Your task to perform on an android device: Is it going to rain tomorrow? Image 0: 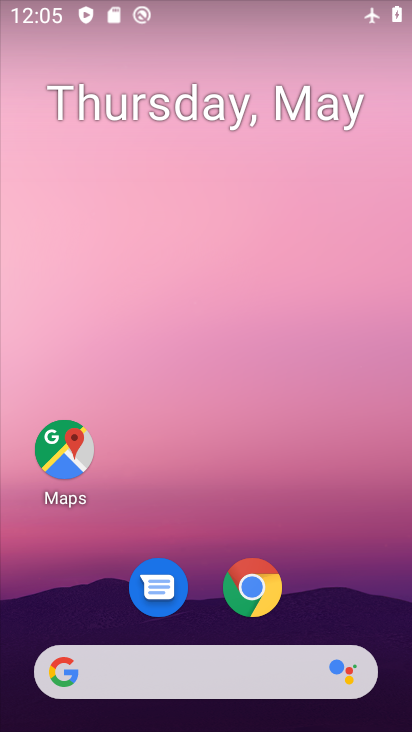
Step 0: click (347, 37)
Your task to perform on an android device: Is it going to rain tomorrow? Image 1: 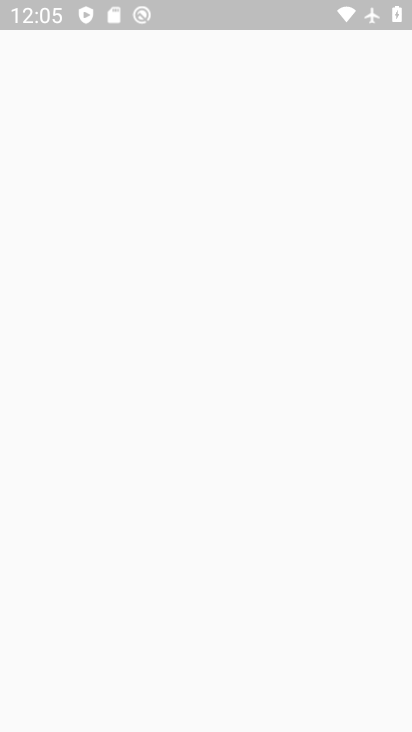
Step 1: drag from (320, 603) to (329, 181)
Your task to perform on an android device: Is it going to rain tomorrow? Image 2: 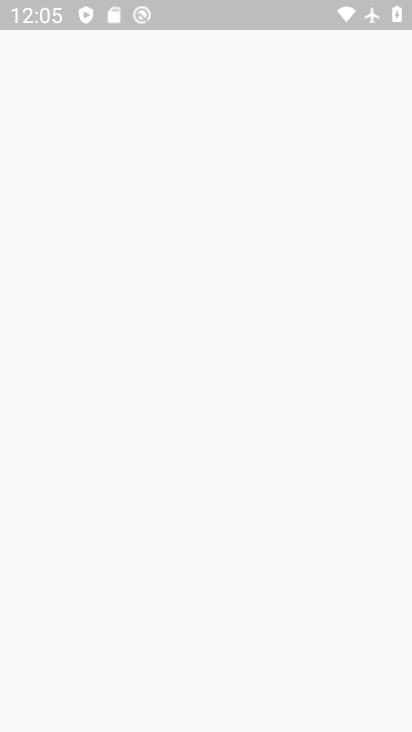
Step 2: press home button
Your task to perform on an android device: Is it going to rain tomorrow? Image 3: 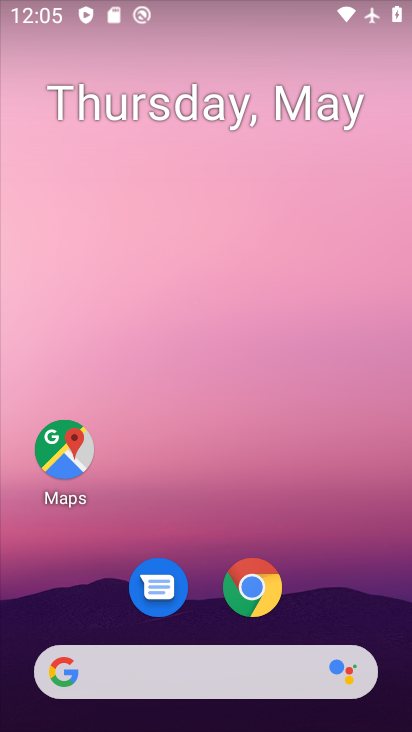
Step 3: drag from (98, 270) to (409, 242)
Your task to perform on an android device: Is it going to rain tomorrow? Image 4: 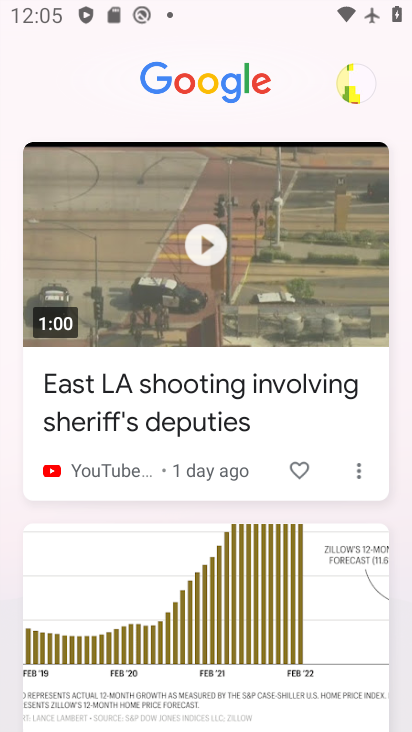
Step 4: drag from (282, 119) to (308, 519)
Your task to perform on an android device: Is it going to rain tomorrow? Image 5: 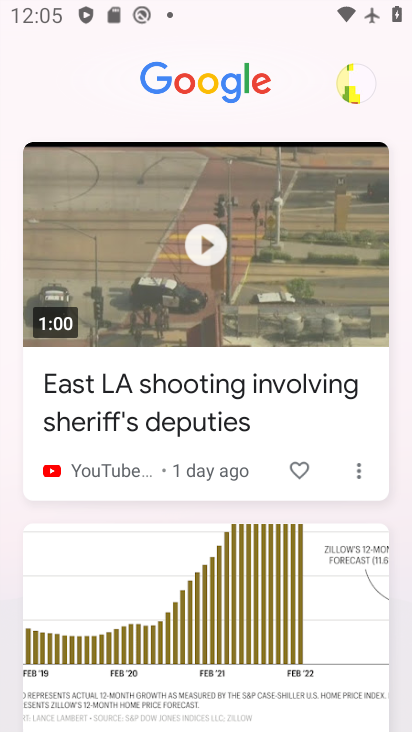
Step 5: press home button
Your task to perform on an android device: Is it going to rain tomorrow? Image 6: 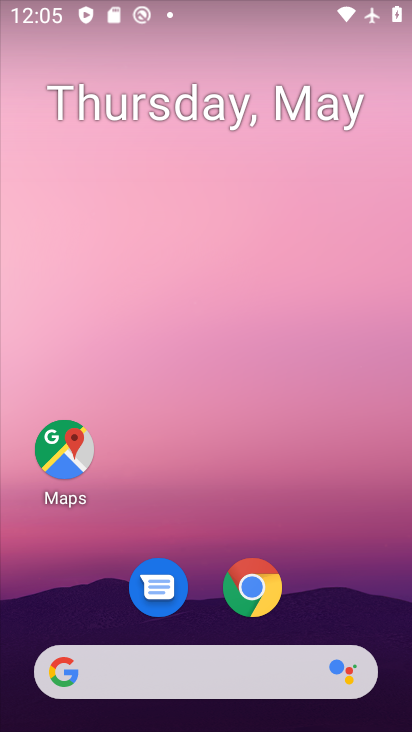
Step 6: drag from (137, 569) to (252, 60)
Your task to perform on an android device: Is it going to rain tomorrow? Image 7: 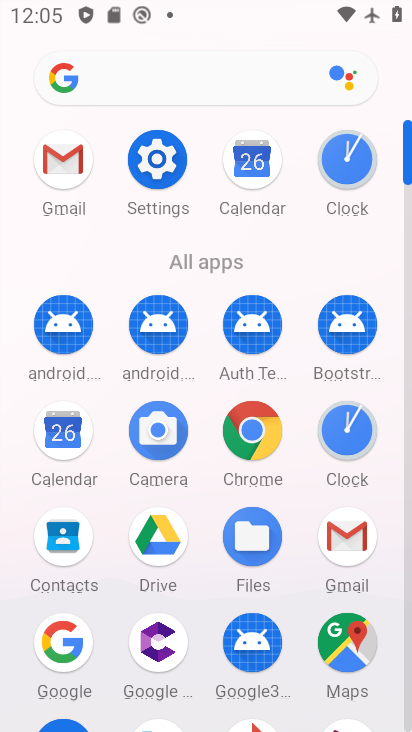
Step 7: click (70, 635)
Your task to perform on an android device: Is it going to rain tomorrow? Image 8: 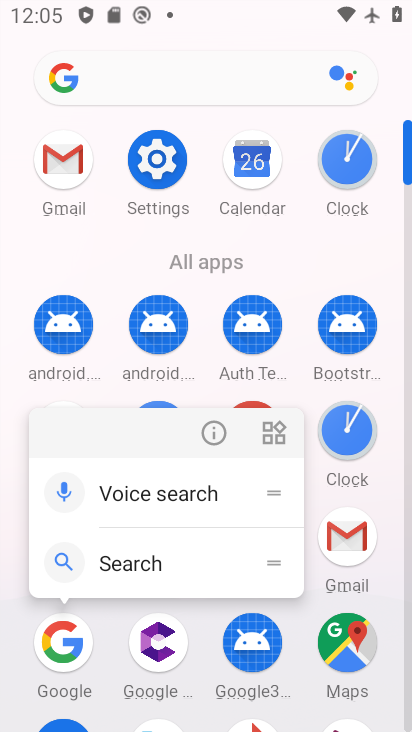
Step 8: click (61, 646)
Your task to perform on an android device: Is it going to rain tomorrow? Image 9: 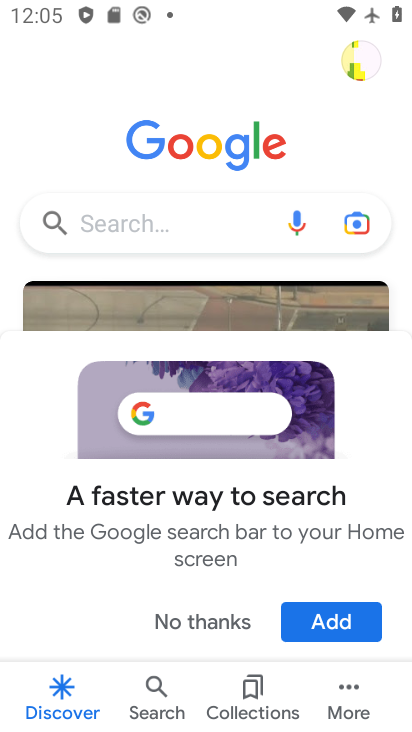
Step 9: click (156, 226)
Your task to perform on an android device: Is it going to rain tomorrow? Image 10: 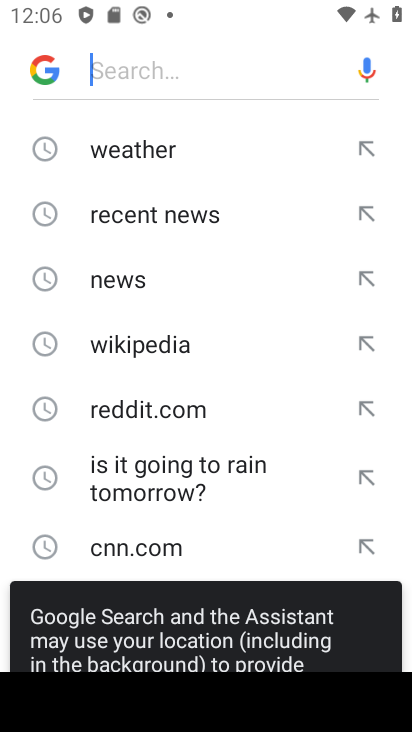
Step 10: click (183, 145)
Your task to perform on an android device: Is it going to rain tomorrow? Image 11: 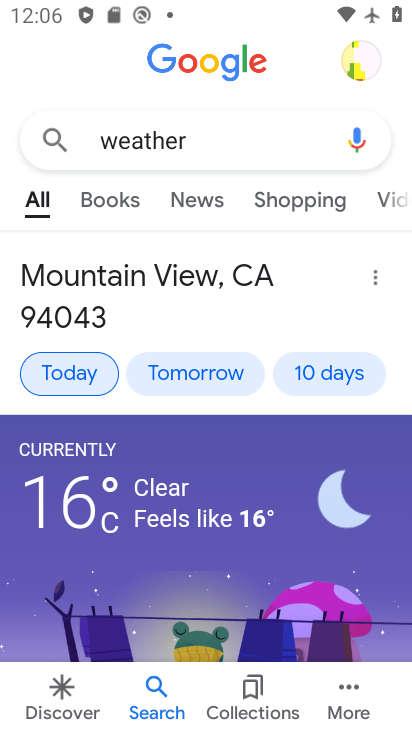
Step 11: click (221, 390)
Your task to perform on an android device: Is it going to rain tomorrow? Image 12: 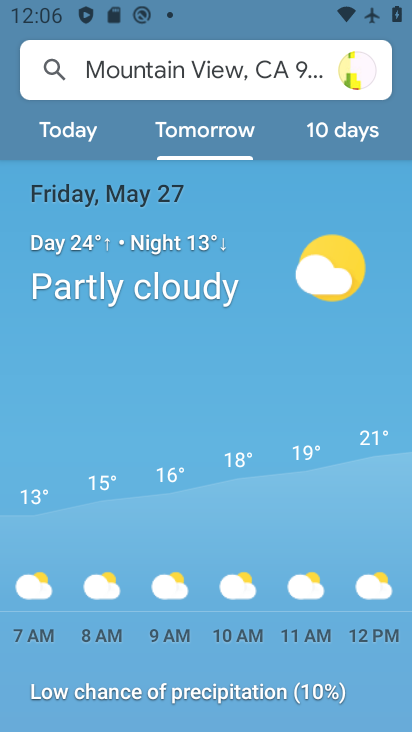
Step 12: task complete